Your task to perform on an android device: toggle pop-ups in chrome Image 0: 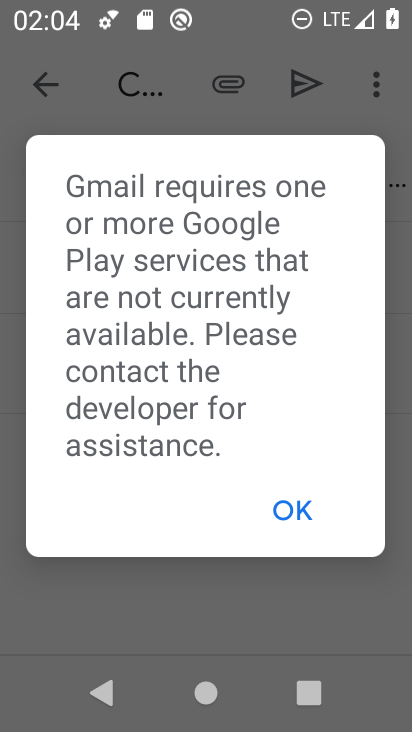
Step 0: press home button
Your task to perform on an android device: toggle pop-ups in chrome Image 1: 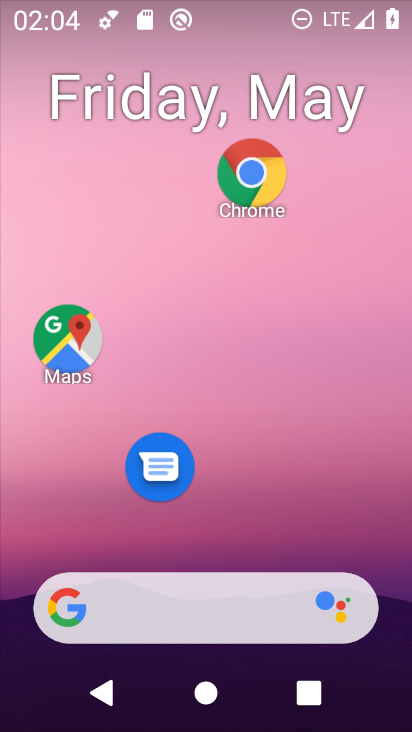
Step 1: drag from (238, 646) to (203, 120)
Your task to perform on an android device: toggle pop-ups in chrome Image 2: 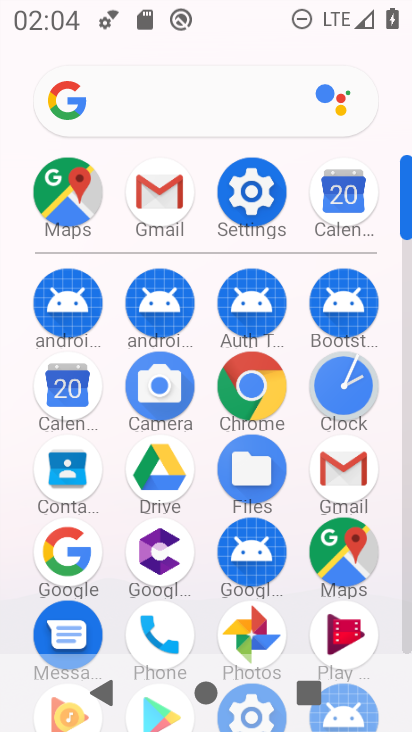
Step 2: click (261, 399)
Your task to perform on an android device: toggle pop-ups in chrome Image 3: 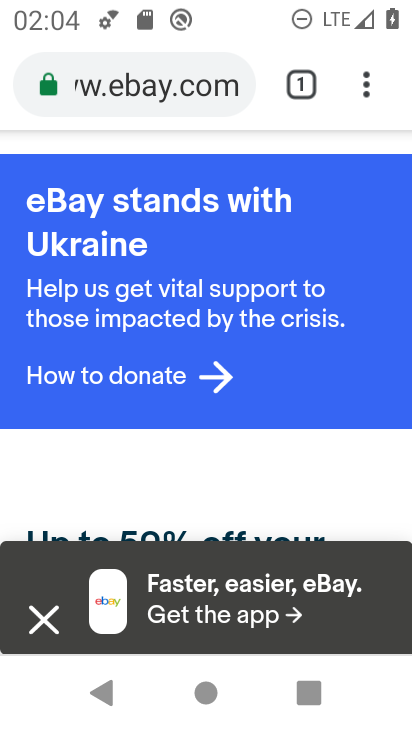
Step 3: click (360, 94)
Your task to perform on an android device: toggle pop-ups in chrome Image 4: 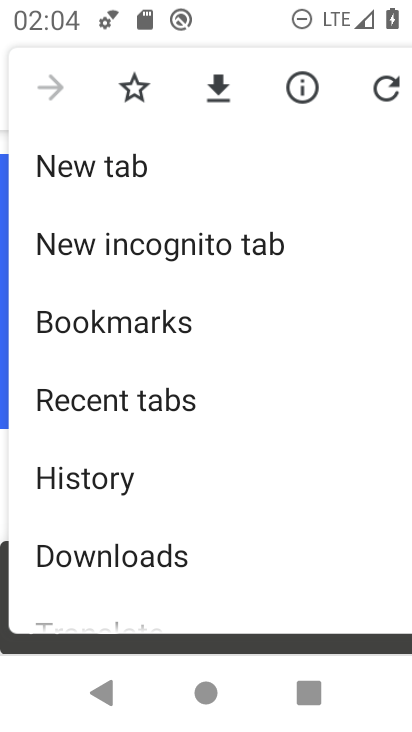
Step 4: drag from (165, 502) to (216, 232)
Your task to perform on an android device: toggle pop-ups in chrome Image 5: 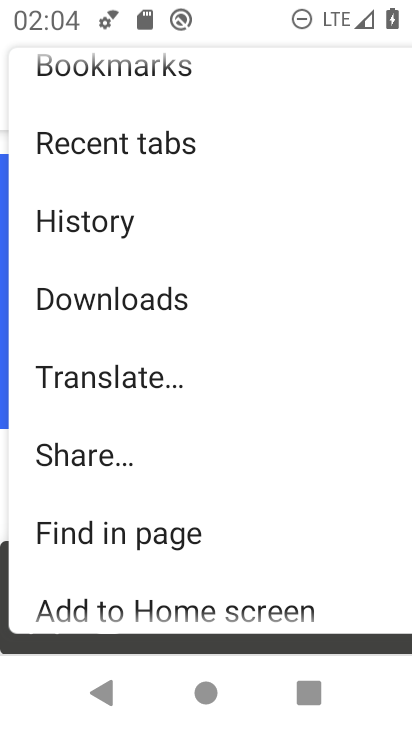
Step 5: drag from (167, 554) to (181, 275)
Your task to perform on an android device: toggle pop-ups in chrome Image 6: 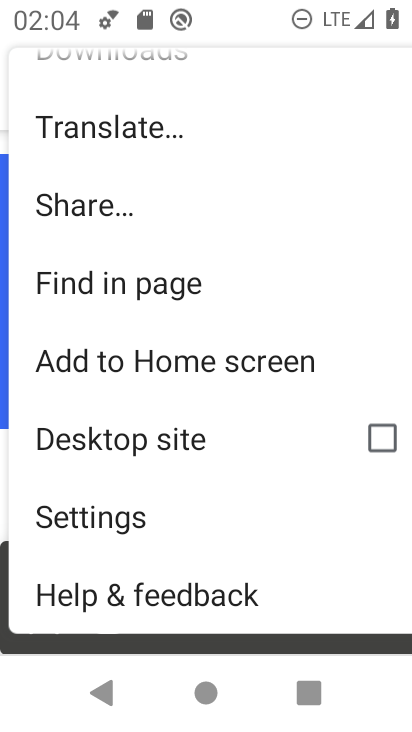
Step 6: click (114, 523)
Your task to perform on an android device: toggle pop-ups in chrome Image 7: 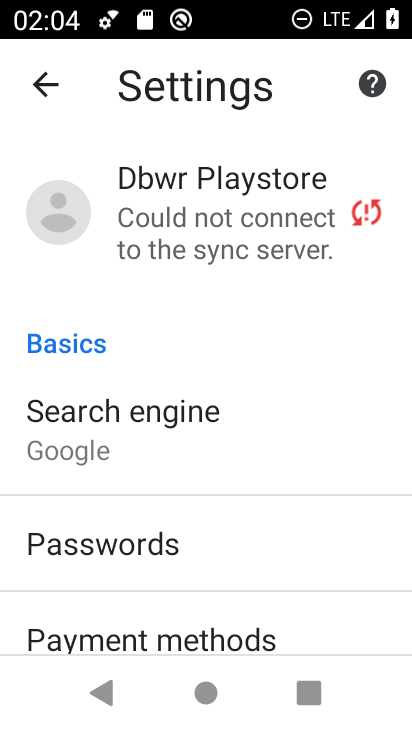
Step 7: drag from (116, 633) to (102, 413)
Your task to perform on an android device: toggle pop-ups in chrome Image 8: 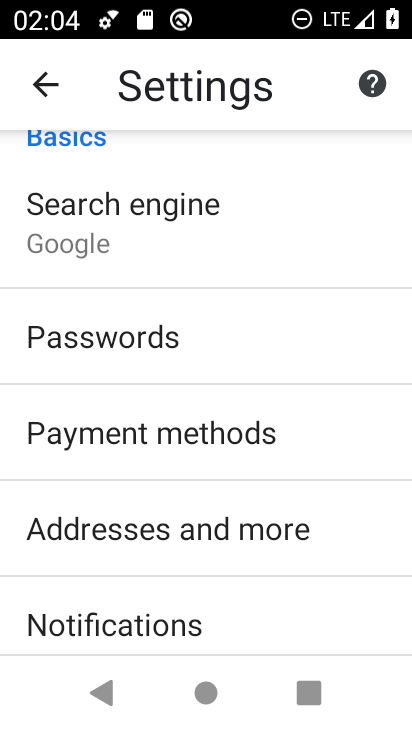
Step 8: drag from (96, 582) to (89, 411)
Your task to perform on an android device: toggle pop-ups in chrome Image 9: 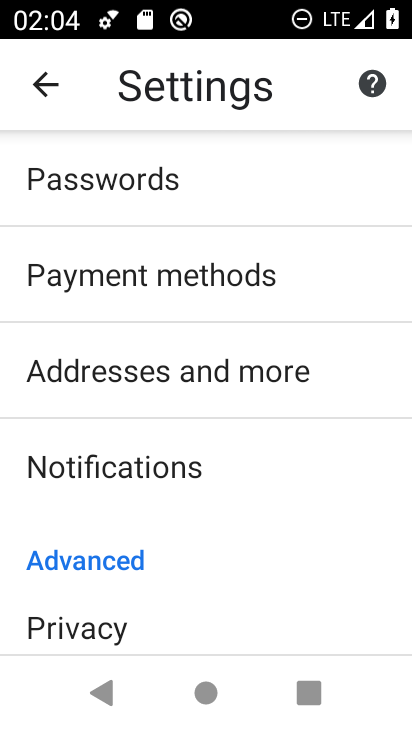
Step 9: drag from (107, 530) to (138, 348)
Your task to perform on an android device: toggle pop-ups in chrome Image 10: 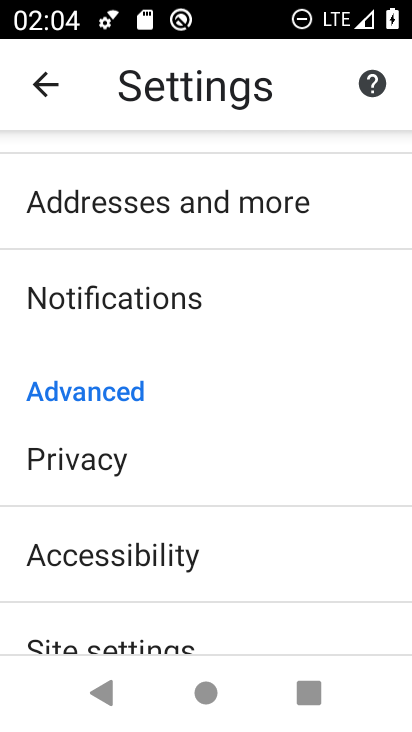
Step 10: drag from (214, 565) to (158, 385)
Your task to perform on an android device: toggle pop-ups in chrome Image 11: 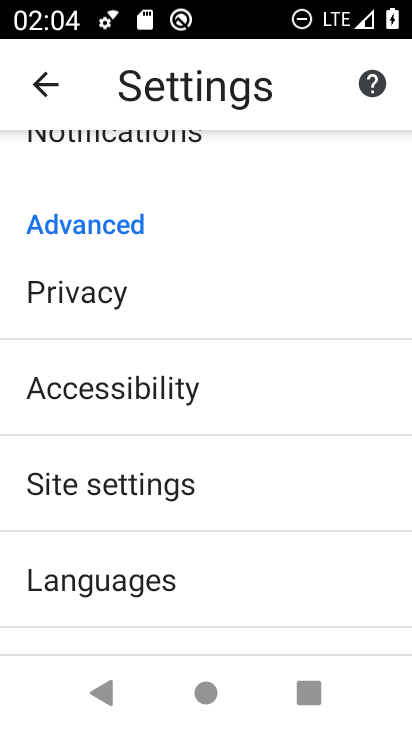
Step 11: click (149, 478)
Your task to perform on an android device: toggle pop-ups in chrome Image 12: 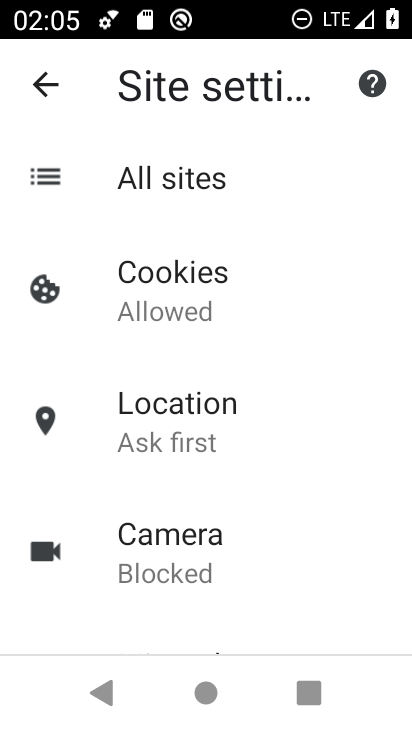
Step 12: drag from (151, 502) to (195, 344)
Your task to perform on an android device: toggle pop-ups in chrome Image 13: 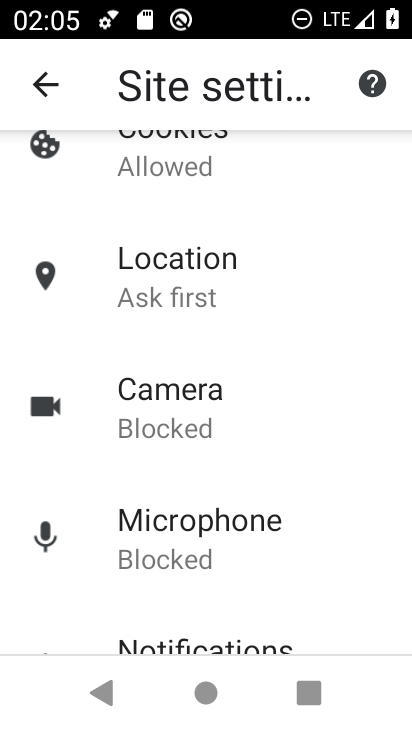
Step 13: drag from (266, 625) to (151, 172)
Your task to perform on an android device: toggle pop-ups in chrome Image 14: 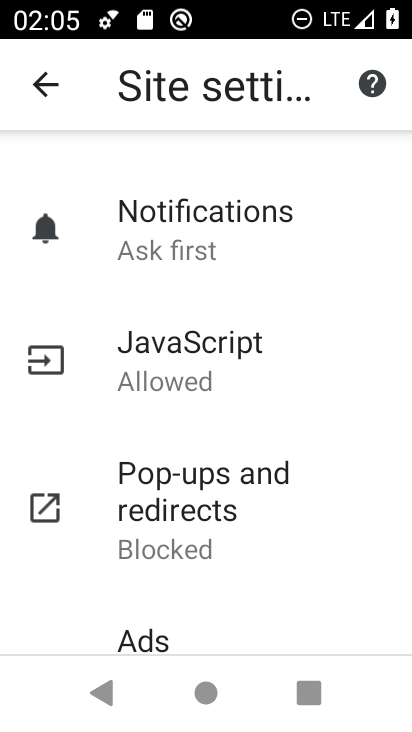
Step 14: click (199, 509)
Your task to perform on an android device: toggle pop-ups in chrome Image 15: 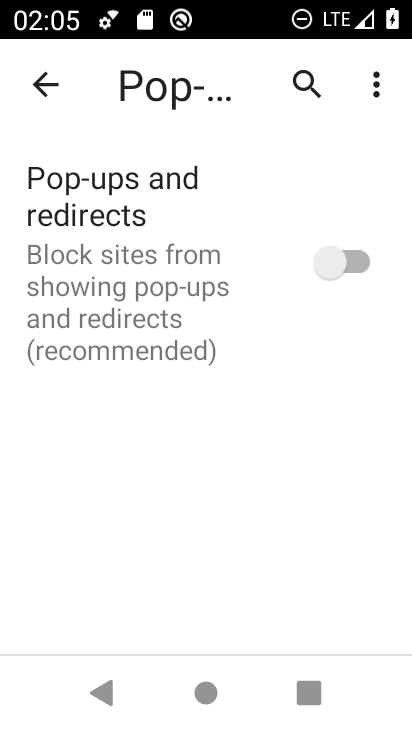
Step 15: task complete